Your task to perform on an android device: Go to ESPN.com Image 0: 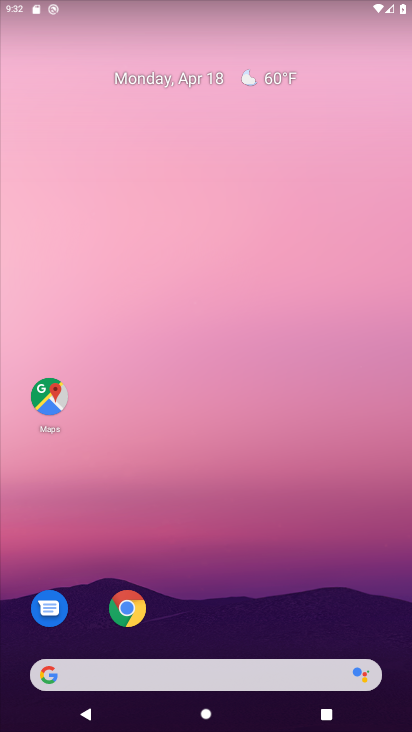
Step 0: drag from (286, 564) to (309, 32)
Your task to perform on an android device: Go to ESPN.com Image 1: 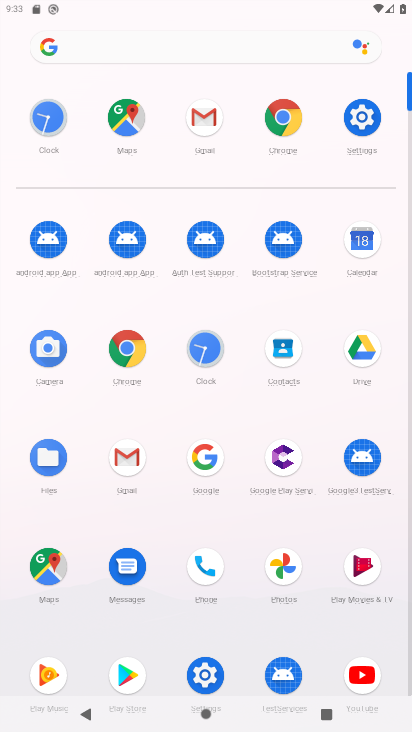
Step 1: click (281, 116)
Your task to perform on an android device: Go to ESPN.com Image 2: 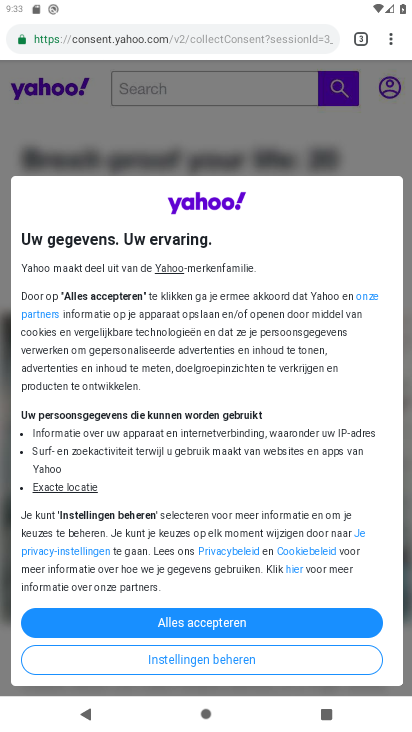
Step 2: click (364, 35)
Your task to perform on an android device: Go to ESPN.com Image 3: 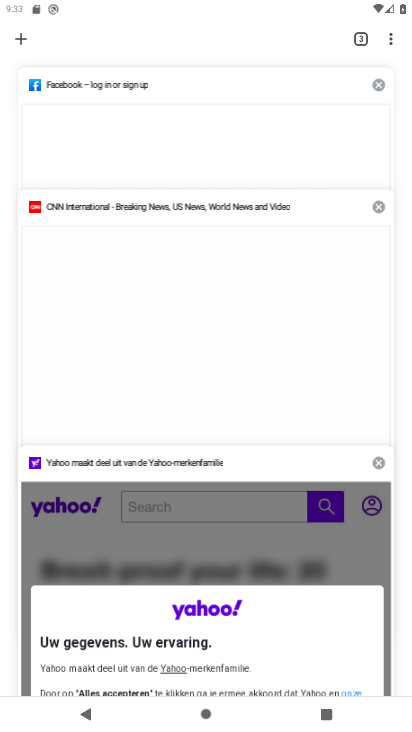
Step 3: click (17, 39)
Your task to perform on an android device: Go to ESPN.com Image 4: 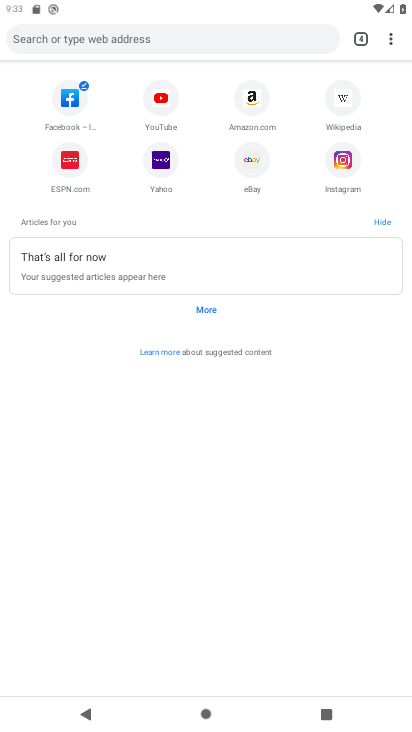
Step 4: click (129, 46)
Your task to perform on an android device: Go to ESPN.com Image 5: 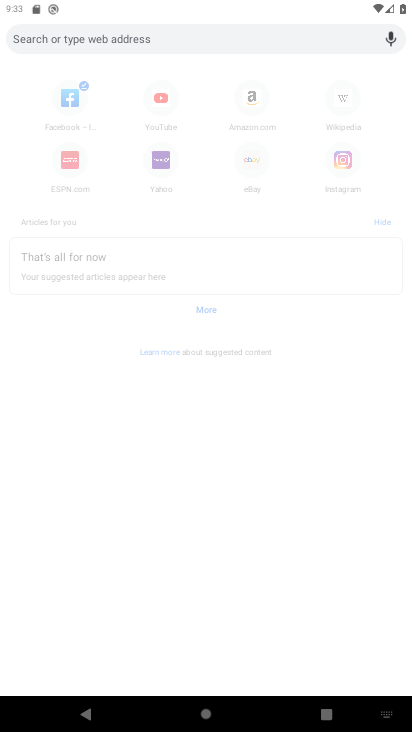
Step 5: type "espn.com"
Your task to perform on an android device: Go to ESPN.com Image 6: 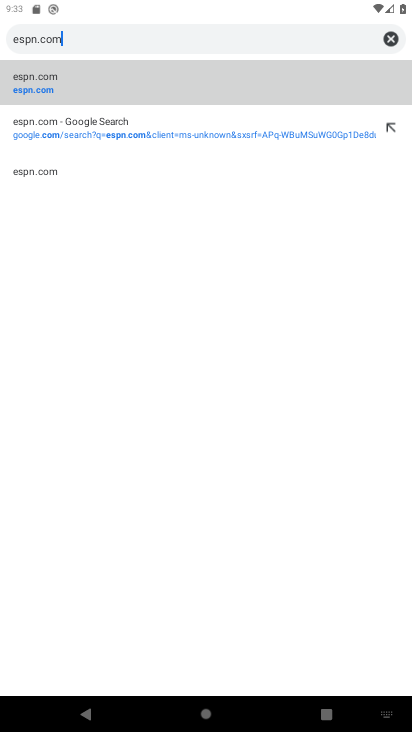
Step 6: click (61, 94)
Your task to perform on an android device: Go to ESPN.com Image 7: 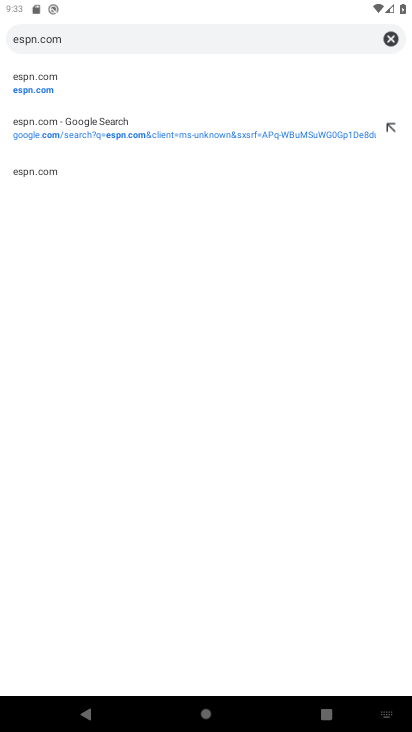
Step 7: click (38, 89)
Your task to perform on an android device: Go to ESPN.com Image 8: 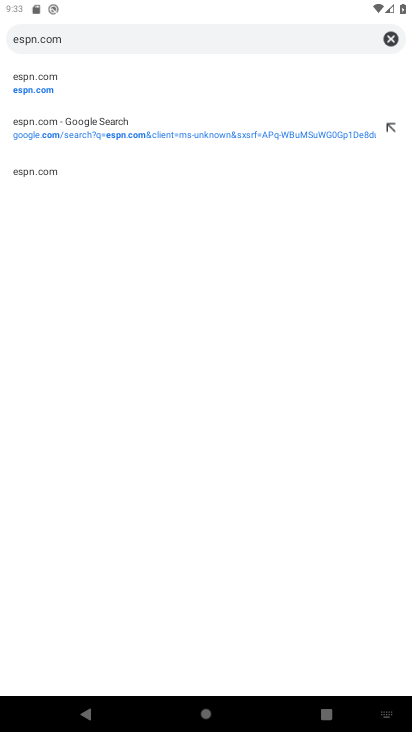
Step 8: click (19, 138)
Your task to perform on an android device: Go to ESPN.com Image 9: 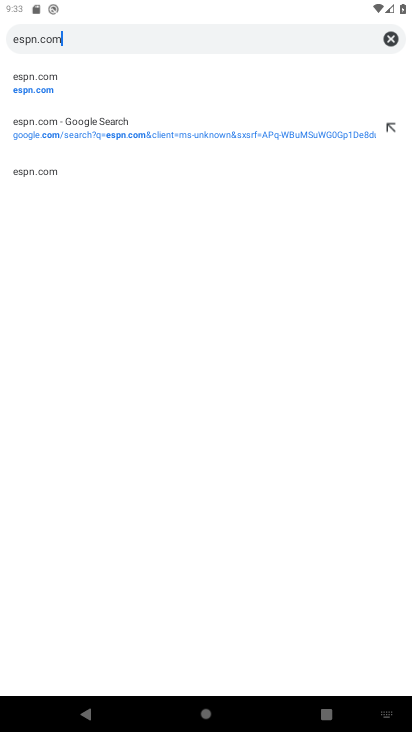
Step 9: click (25, 85)
Your task to perform on an android device: Go to ESPN.com Image 10: 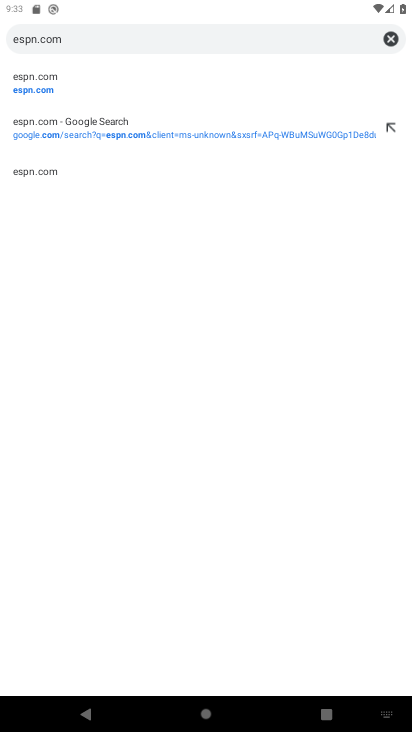
Step 10: click (35, 169)
Your task to perform on an android device: Go to ESPN.com Image 11: 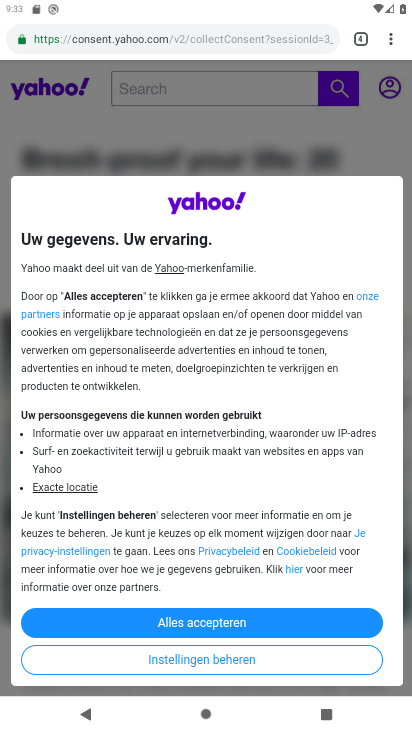
Step 11: click (196, 634)
Your task to perform on an android device: Go to ESPN.com Image 12: 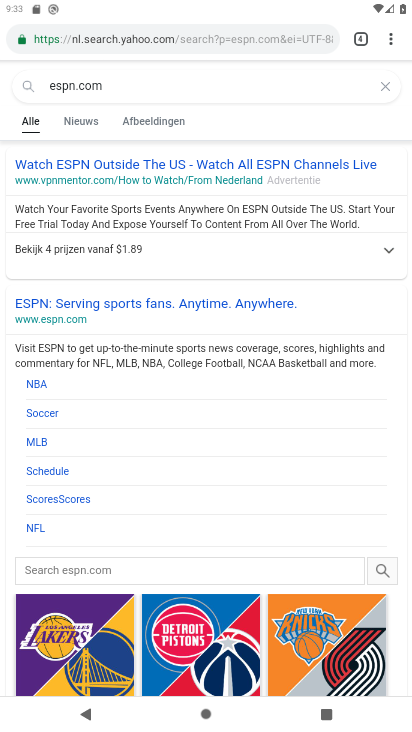
Step 12: task complete